Your task to perform on an android device: snooze an email in the gmail app Image 0: 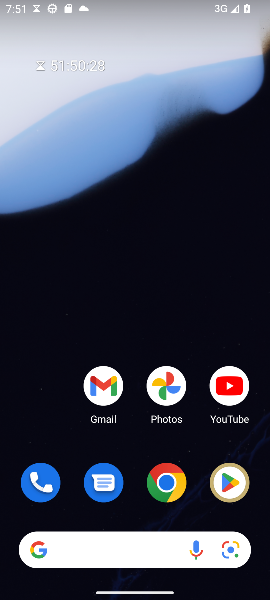
Step 0: drag from (116, 514) to (233, 99)
Your task to perform on an android device: snooze an email in the gmail app Image 1: 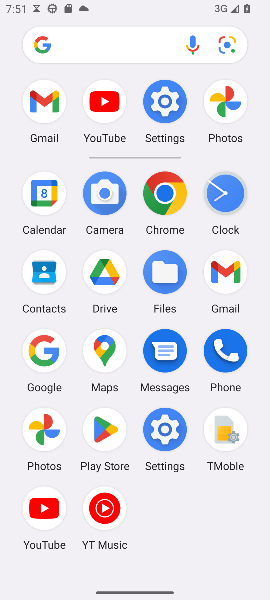
Step 1: click (51, 105)
Your task to perform on an android device: snooze an email in the gmail app Image 2: 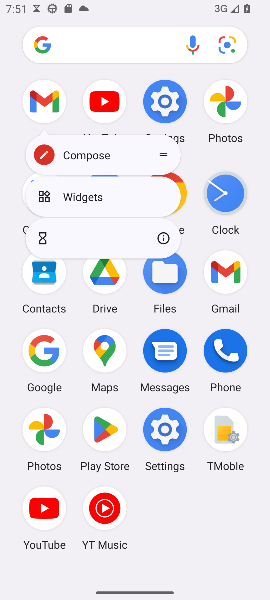
Step 2: click (48, 104)
Your task to perform on an android device: snooze an email in the gmail app Image 3: 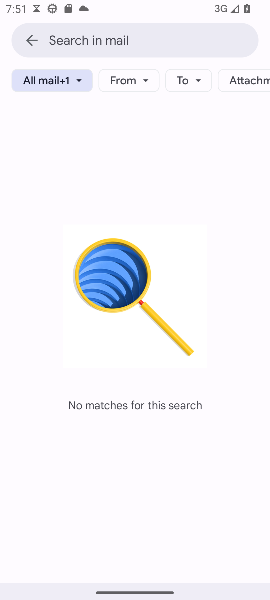
Step 3: click (24, 40)
Your task to perform on an android device: snooze an email in the gmail app Image 4: 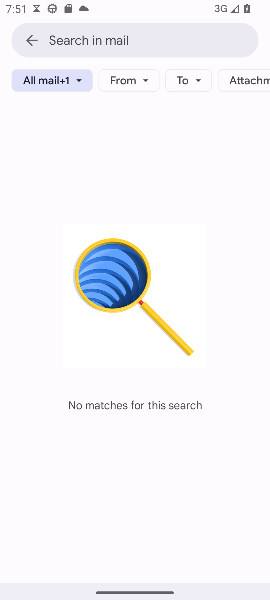
Step 4: click (213, 216)
Your task to perform on an android device: snooze an email in the gmail app Image 5: 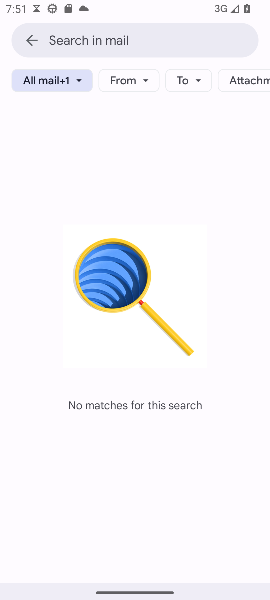
Step 5: click (35, 71)
Your task to perform on an android device: snooze an email in the gmail app Image 6: 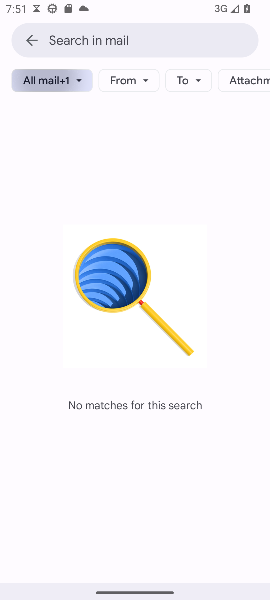
Step 6: click (21, 87)
Your task to perform on an android device: snooze an email in the gmail app Image 7: 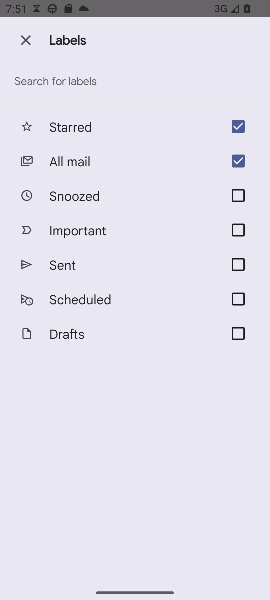
Step 7: click (28, 40)
Your task to perform on an android device: snooze an email in the gmail app Image 8: 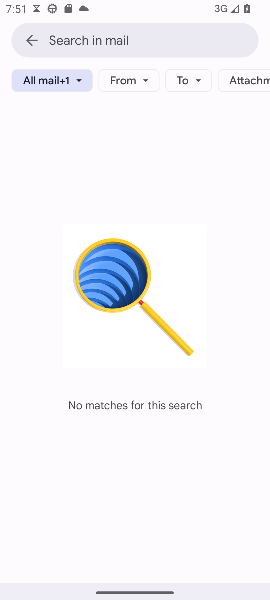
Step 8: task complete